Your task to perform on an android device: toggle sleep mode Image 0: 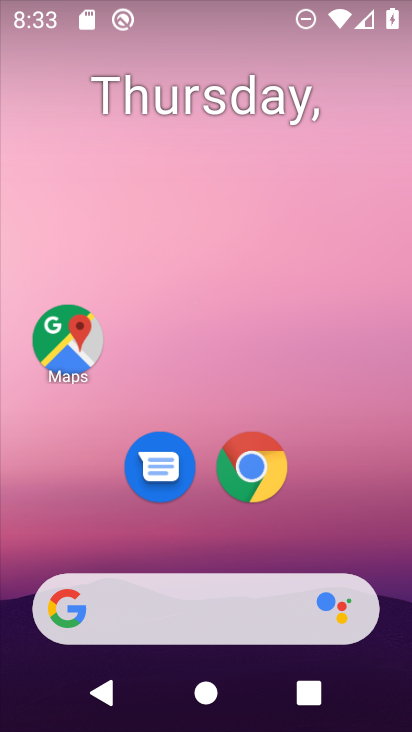
Step 0: drag from (349, 504) to (242, 83)
Your task to perform on an android device: toggle sleep mode Image 1: 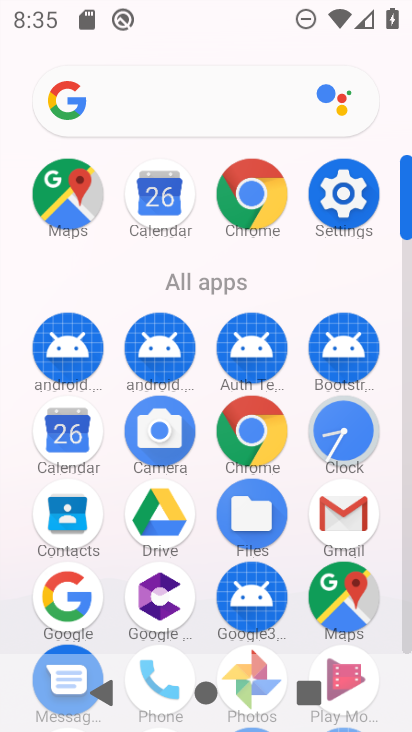
Step 1: click (344, 190)
Your task to perform on an android device: toggle sleep mode Image 2: 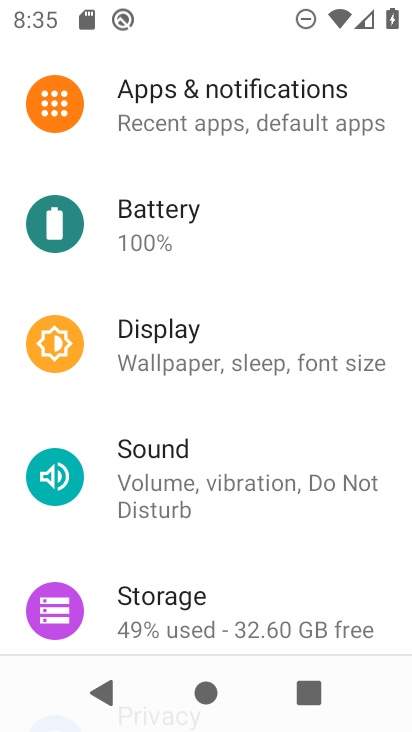
Step 2: click (163, 344)
Your task to perform on an android device: toggle sleep mode Image 3: 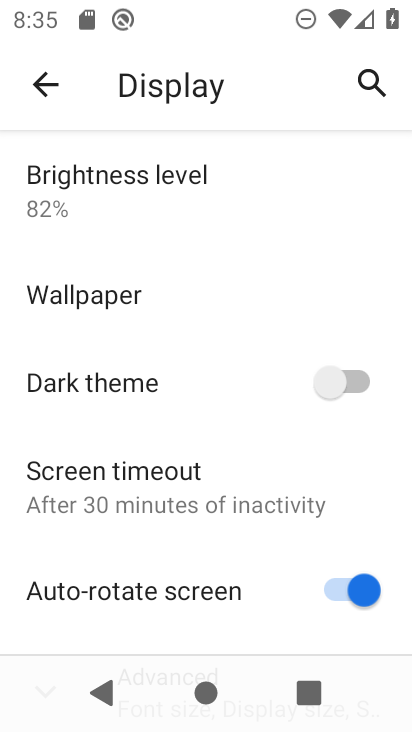
Step 3: task complete